Your task to perform on an android device: set the stopwatch Image 0: 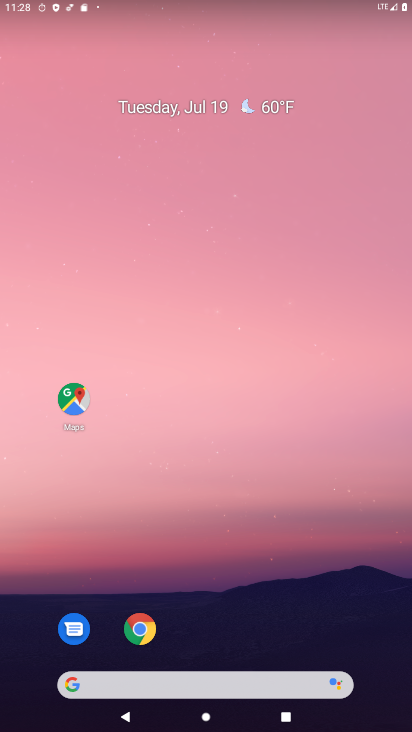
Step 0: drag from (271, 604) to (248, 87)
Your task to perform on an android device: set the stopwatch Image 1: 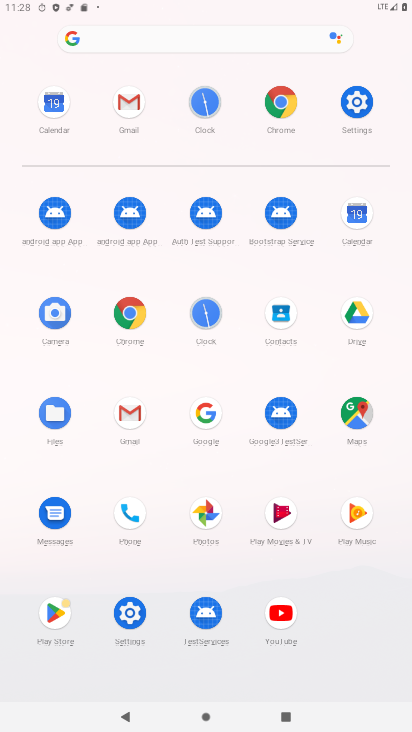
Step 1: click (195, 325)
Your task to perform on an android device: set the stopwatch Image 2: 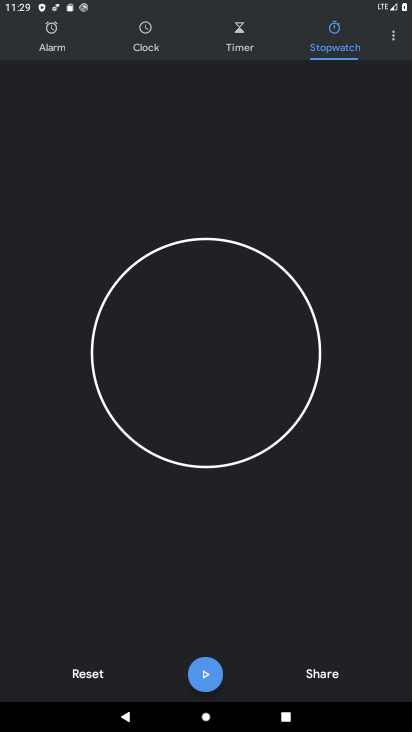
Step 2: task complete